Your task to perform on an android device: Show me recent news Image 0: 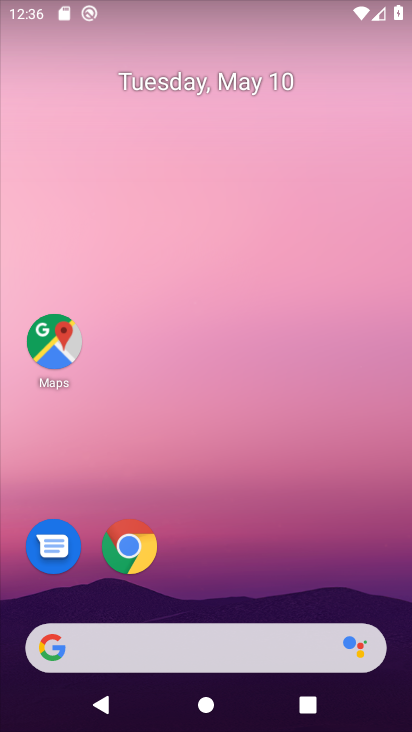
Step 0: click (138, 561)
Your task to perform on an android device: Show me recent news Image 1: 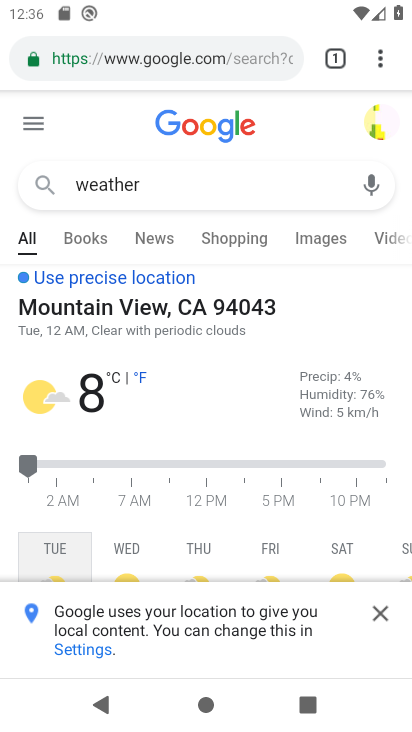
Step 1: click (275, 184)
Your task to perform on an android device: Show me recent news Image 2: 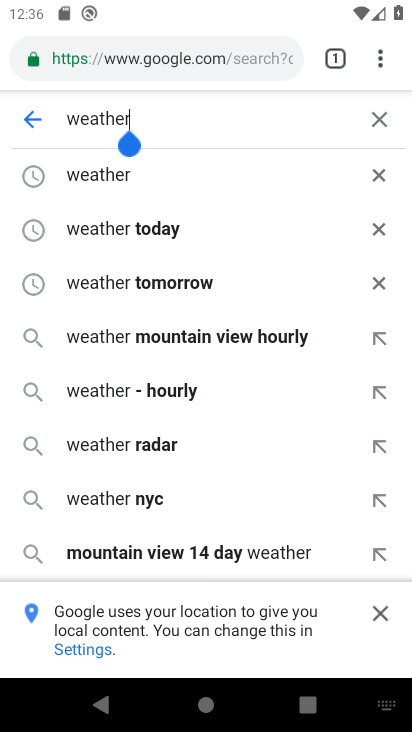
Step 2: click (364, 109)
Your task to perform on an android device: Show me recent news Image 3: 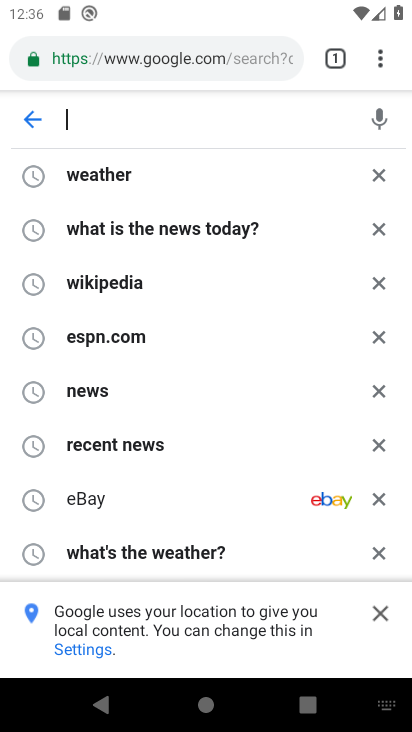
Step 3: click (299, 114)
Your task to perform on an android device: Show me recent news Image 4: 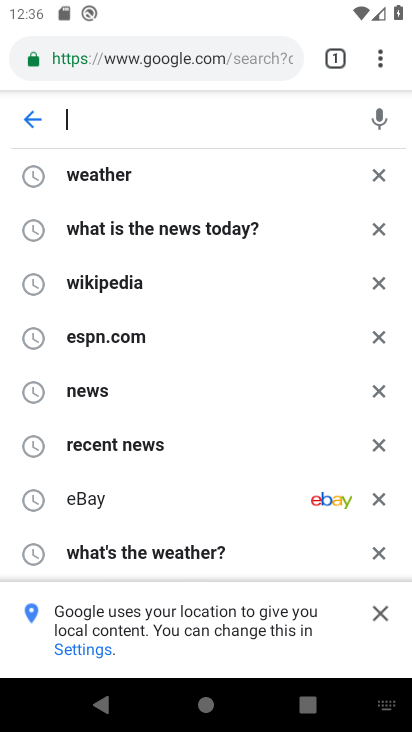
Step 4: type "Show me recent news"
Your task to perform on an android device: Show me recent news Image 5: 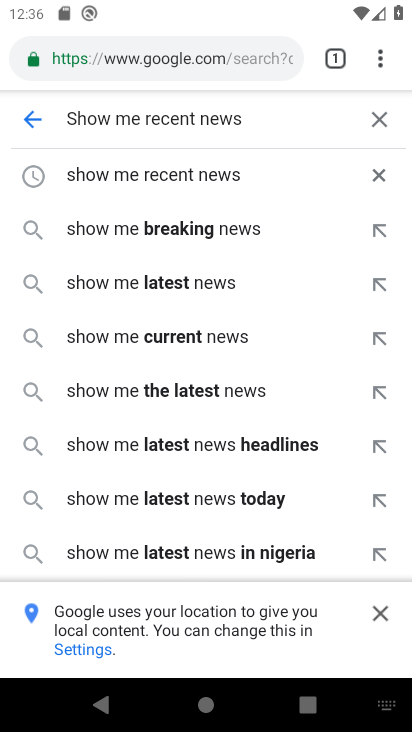
Step 5: click (237, 184)
Your task to perform on an android device: Show me recent news Image 6: 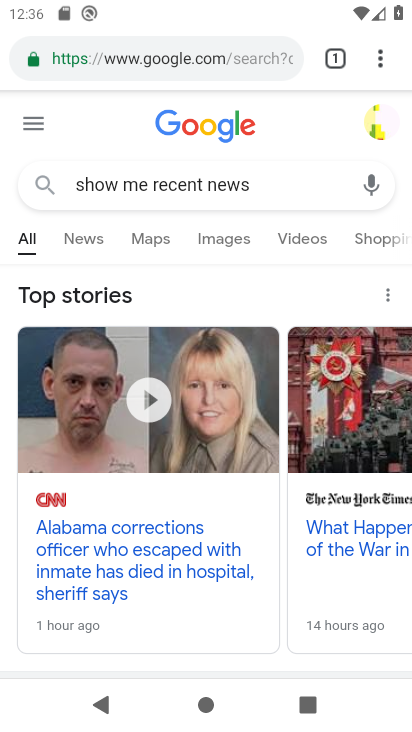
Step 6: task complete